Your task to perform on an android device: change your default location settings in chrome Image 0: 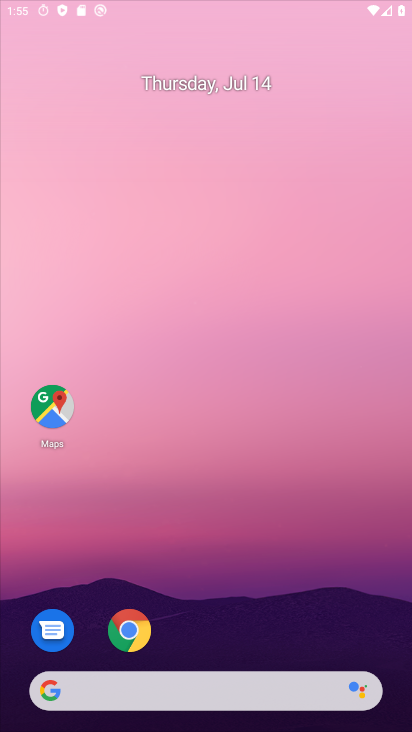
Step 0: click (262, 240)
Your task to perform on an android device: change your default location settings in chrome Image 1: 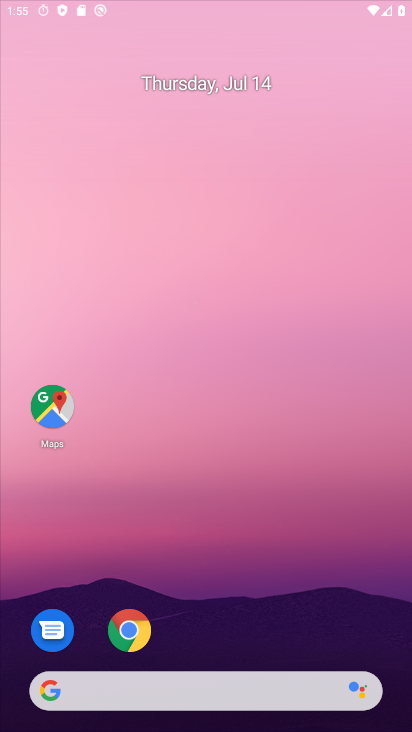
Step 1: drag from (196, 598) to (309, 176)
Your task to perform on an android device: change your default location settings in chrome Image 2: 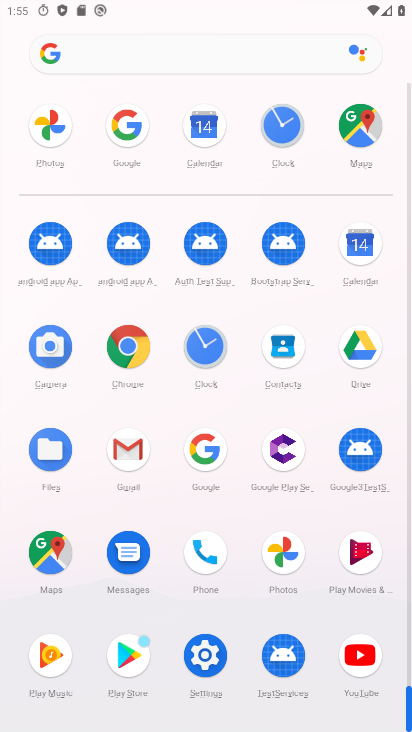
Step 2: click (123, 351)
Your task to perform on an android device: change your default location settings in chrome Image 3: 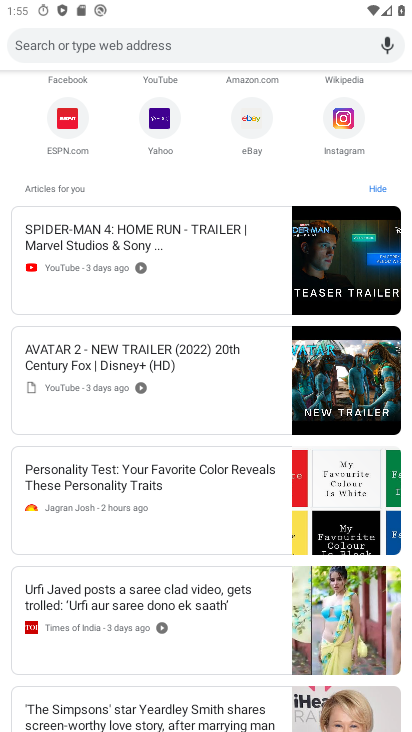
Step 3: drag from (108, 641) to (228, 240)
Your task to perform on an android device: change your default location settings in chrome Image 4: 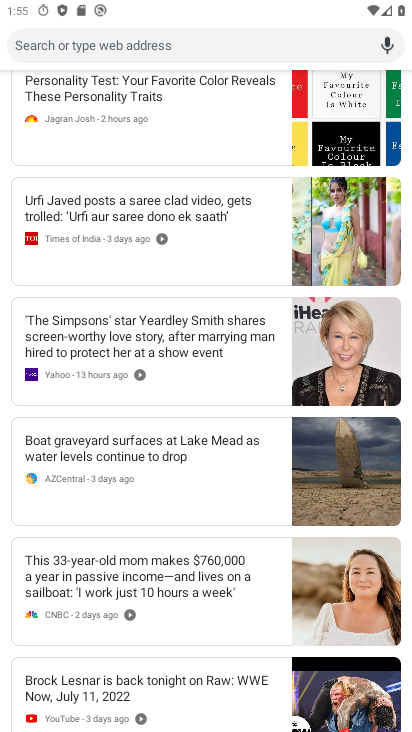
Step 4: drag from (225, 261) to (409, 547)
Your task to perform on an android device: change your default location settings in chrome Image 5: 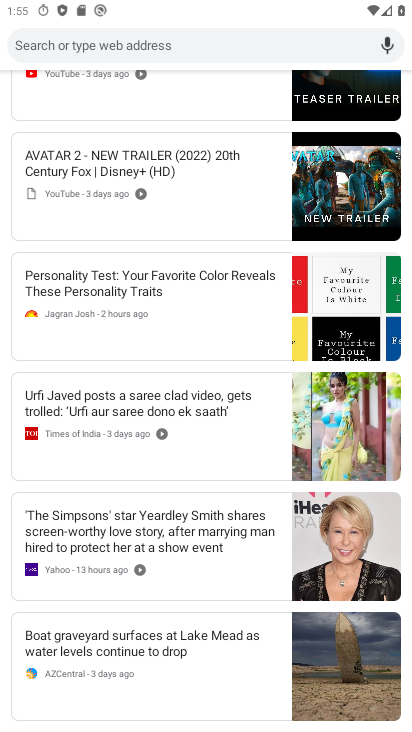
Step 5: drag from (378, 113) to (389, 594)
Your task to perform on an android device: change your default location settings in chrome Image 6: 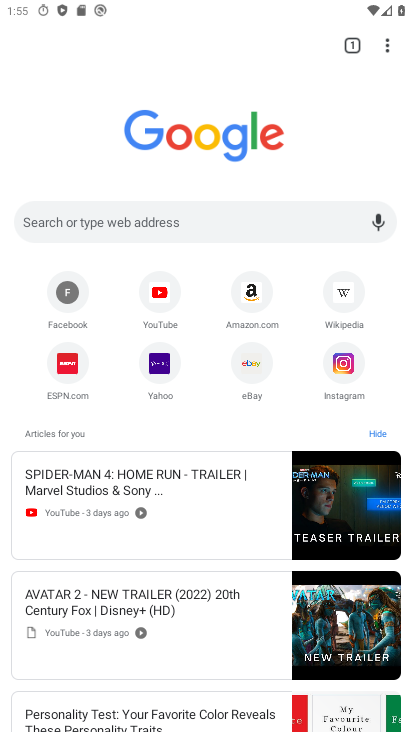
Step 6: click (386, 47)
Your task to perform on an android device: change your default location settings in chrome Image 7: 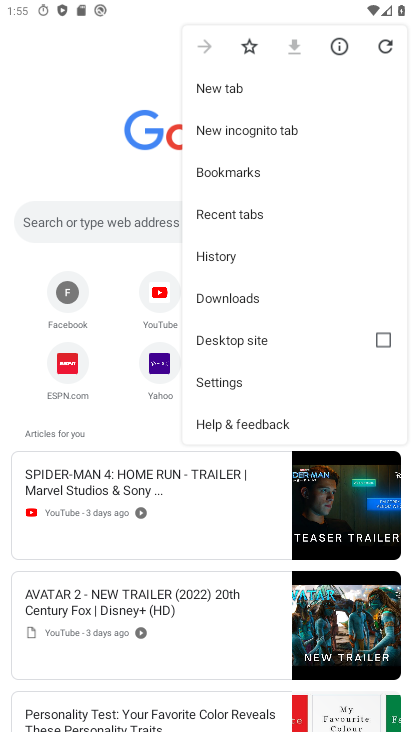
Step 7: click (220, 389)
Your task to perform on an android device: change your default location settings in chrome Image 8: 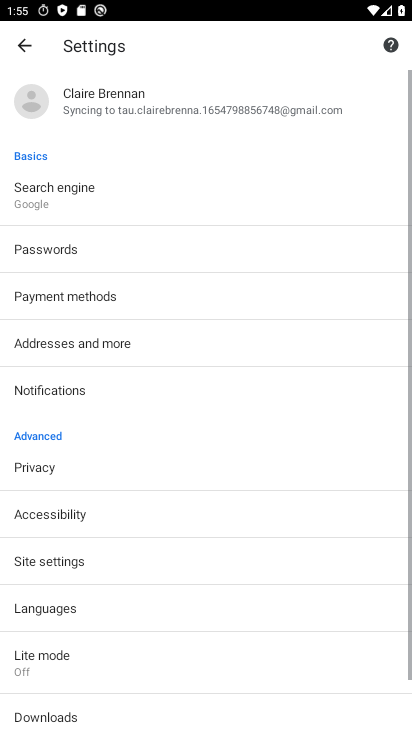
Step 8: drag from (213, 583) to (262, 89)
Your task to perform on an android device: change your default location settings in chrome Image 9: 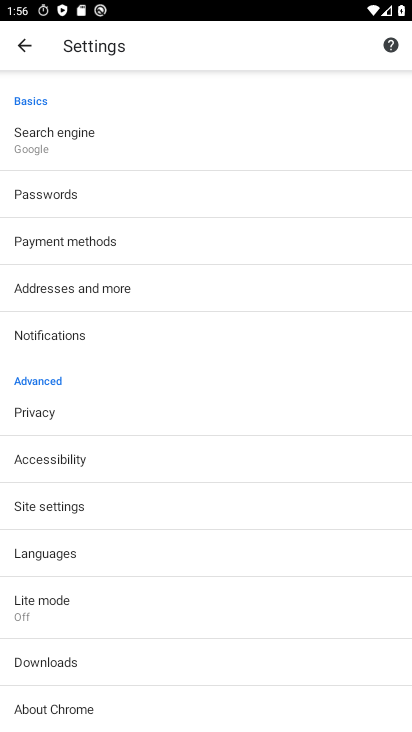
Step 9: click (82, 497)
Your task to perform on an android device: change your default location settings in chrome Image 10: 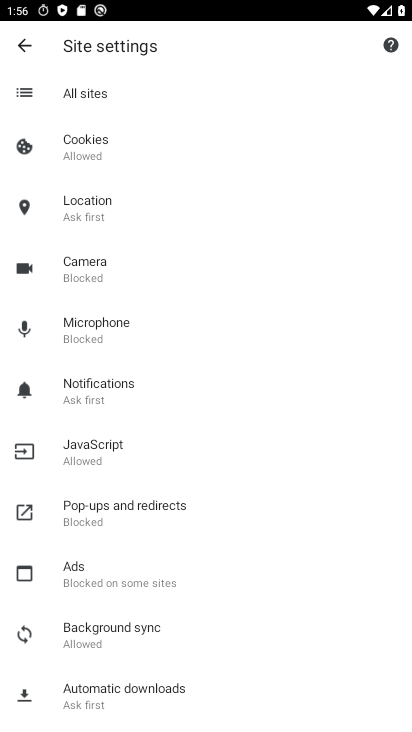
Step 10: drag from (152, 684) to (298, 289)
Your task to perform on an android device: change your default location settings in chrome Image 11: 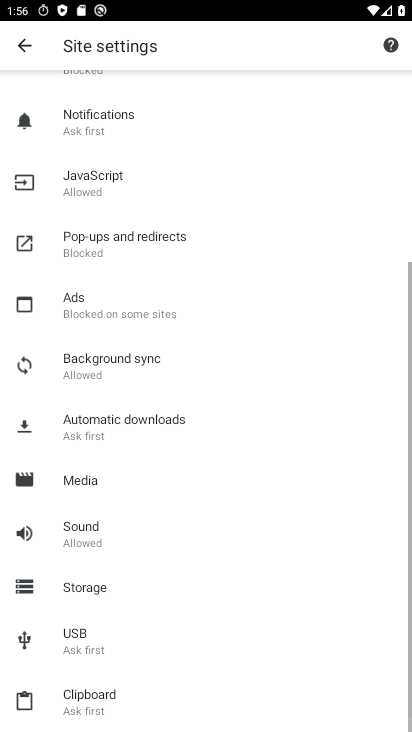
Step 11: drag from (274, 201) to (328, 731)
Your task to perform on an android device: change your default location settings in chrome Image 12: 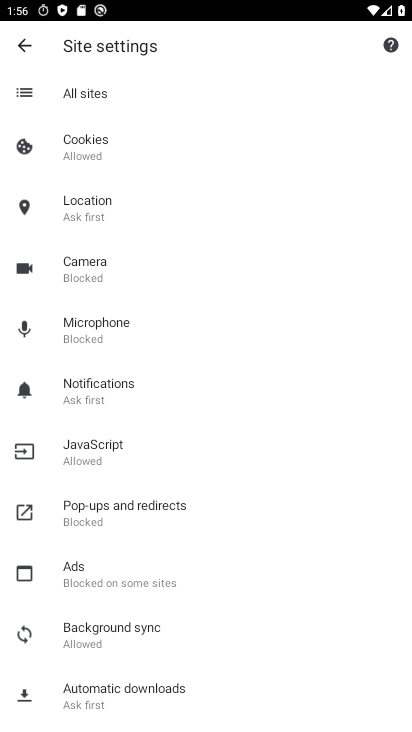
Step 12: drag from (167, 165) to (229, 537)
Your task to perform on an android device: change your default location settings in chrome Image 13: 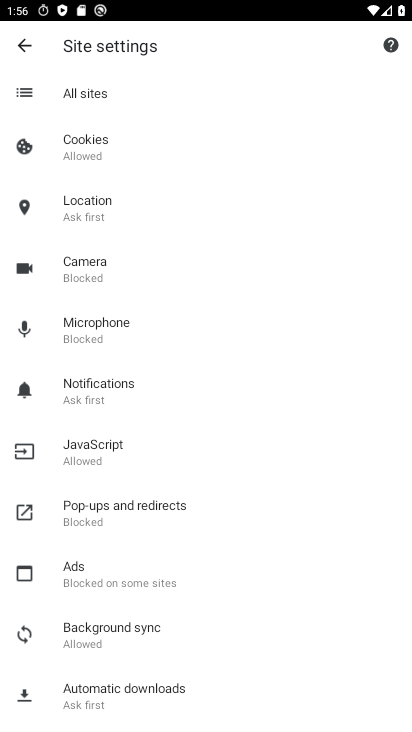
Step 13: drag from (174, 182) to (246, 681)
Your task to perform on an android device: change your default location settings in chrome Image 14: 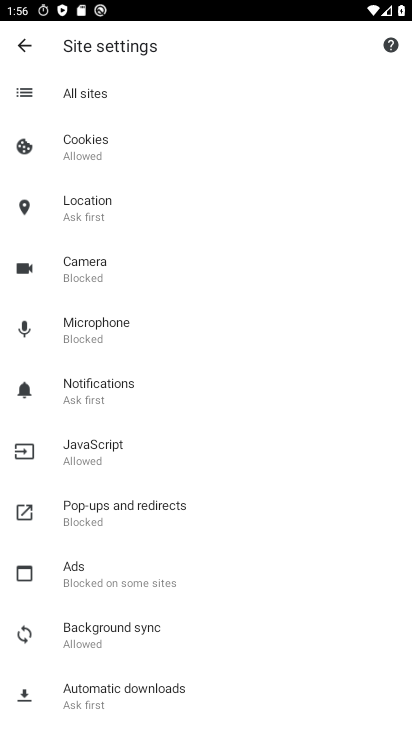
Step 14: drag from (179, 169) to (289, 726)
Your task to perform on an android device: change your default location settings in chrome Image 15: 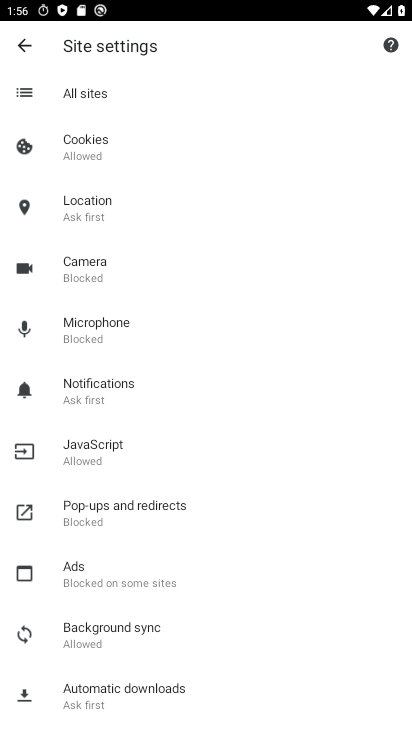
Step 15: click (122, 214)
Your task to perform on an android device: change your default location settings in chrome Image 16: 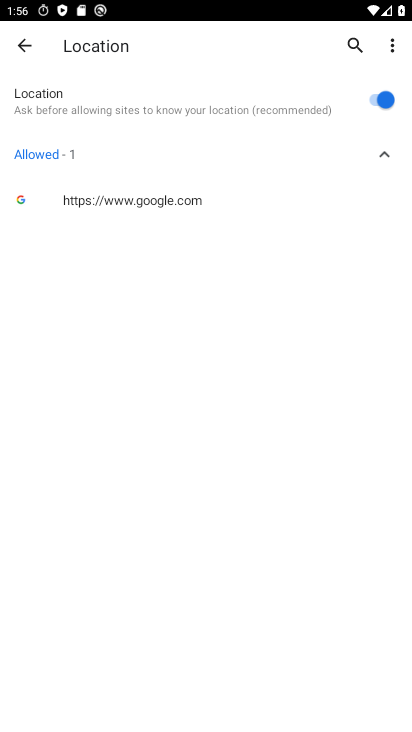
Step 16: click (375, 93)
Your task to perform on an android device: change your default location settings in chrome Image 17: 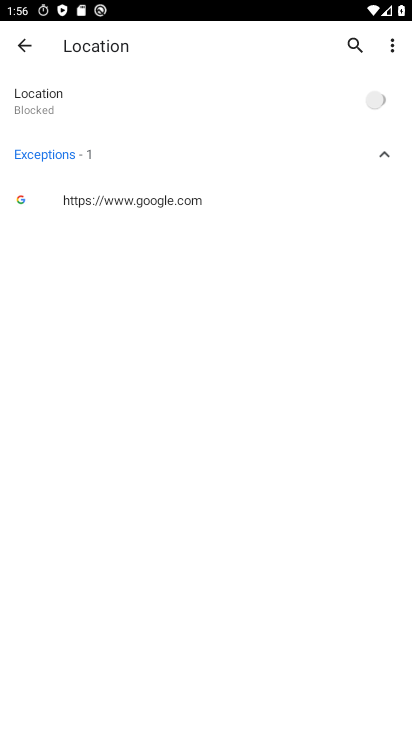
Step 17: task complete